Your task to perform on an android device: Show me productivity apps on the Play Store Image 0: 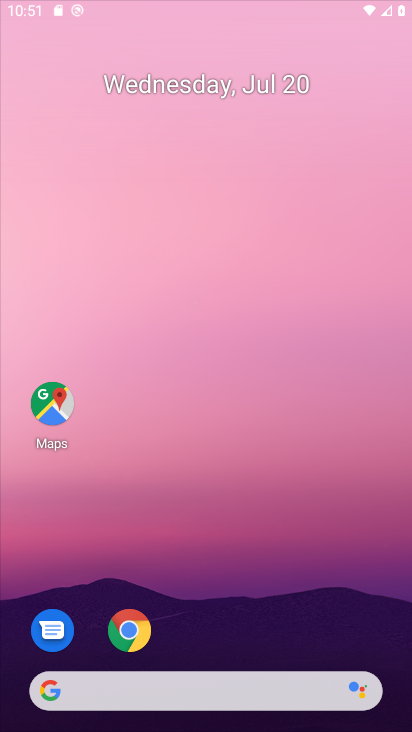
Step 0: drag from (207, 686) to (186, 144)
Your task to perform on an android device: Show me productivity apps on the Play Store Image 1: 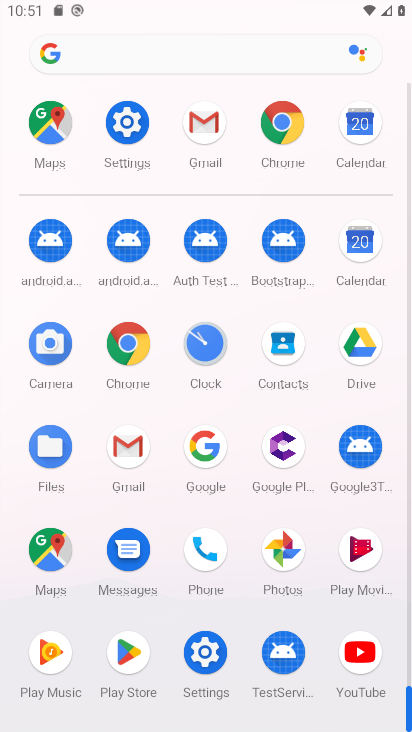
Step 1: click (124, 645)
Your task to perform on an android device: Show me productivity apps on the Play Store Image 2: 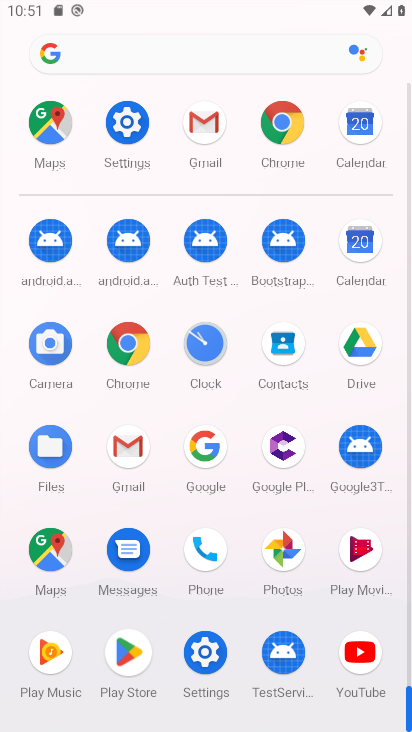
Step 2: click (124, 645)
Your task to perform on an android device: Show me productivity apps on the Play Store Image 3: 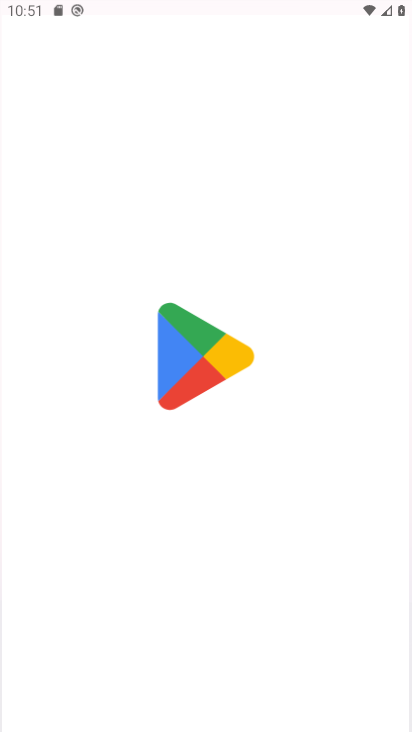
Step 3: click (124, 645)
Your task to perform on an android device: Show me productivity apps on the Play Store Image 4: 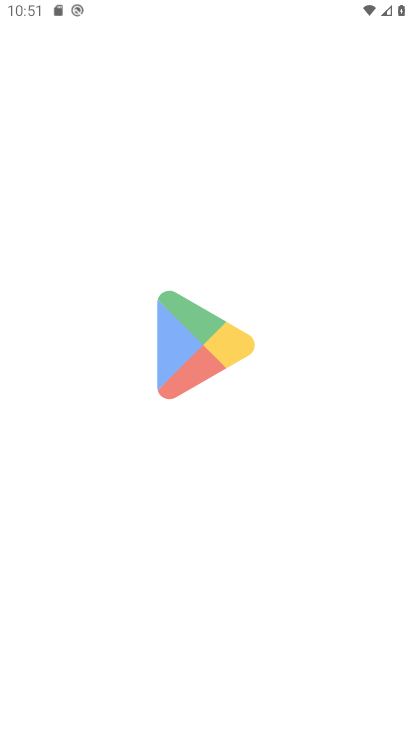
Step 4: click (124, 645)
Your task to perform on an android device: Show me productivity apps on the Play Store Image 5: 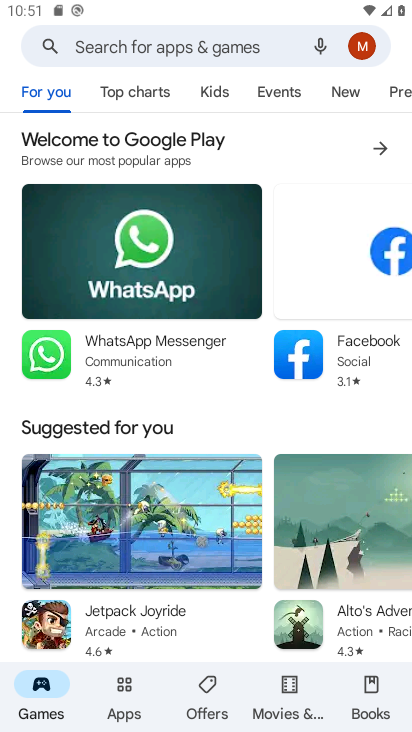
Step 5: click (85, 47)
Your task to perform on an android device: Show me productivity apps on the Play Store Image 6: 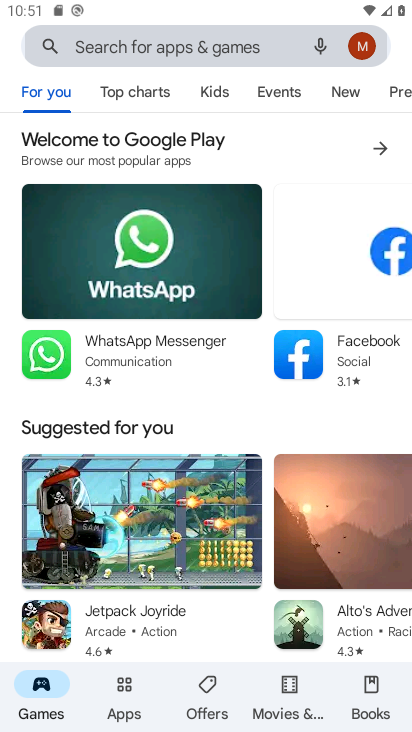
Step 6: click (91, 43)
Your task to perform on an android device: Show me productivity apps on the Play Store Image 7: 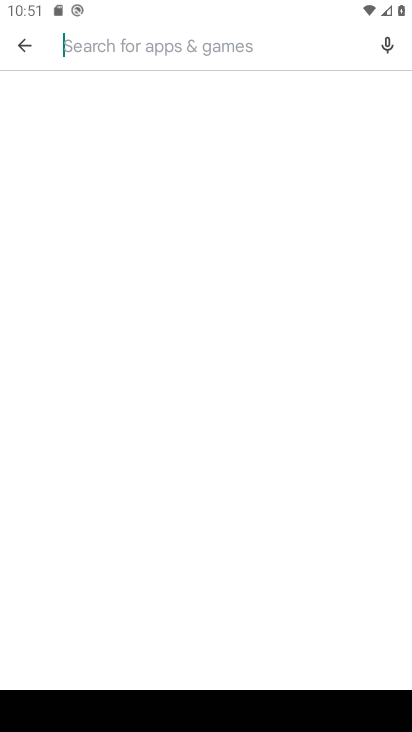
Step 7: click (96, 41)
Your task to perform on an android device: Show me productivity apps on the Play Store Image 8: 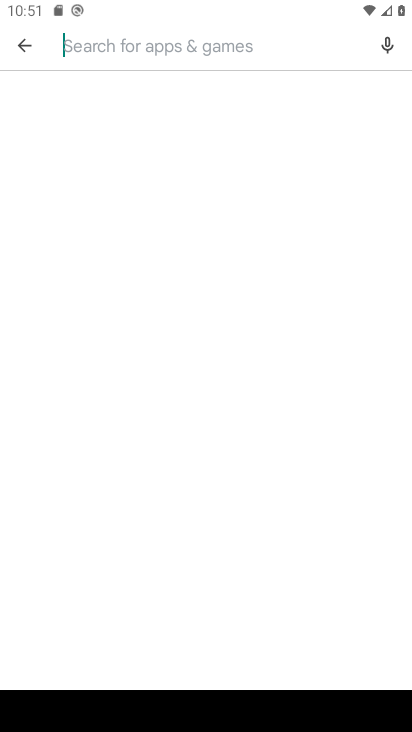
Step 8: type "productivity apps"
Your task to perform on an android device: Show me productivity apps on the Play Store Image 9: 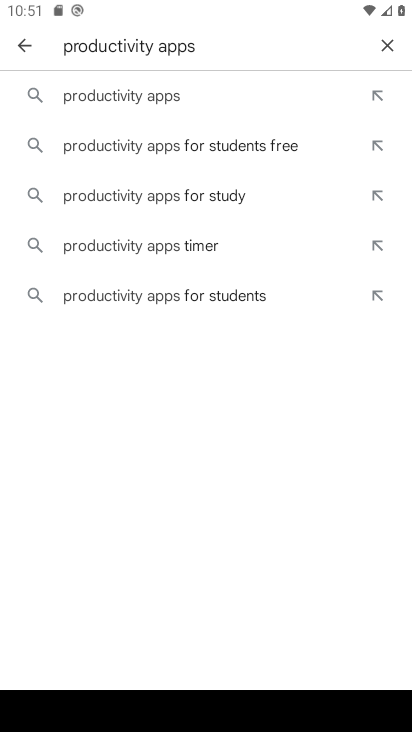
Step 9: click (129, 91)
Your task to perform on an android device: Show me productivity apps on the Play Store Image 10: 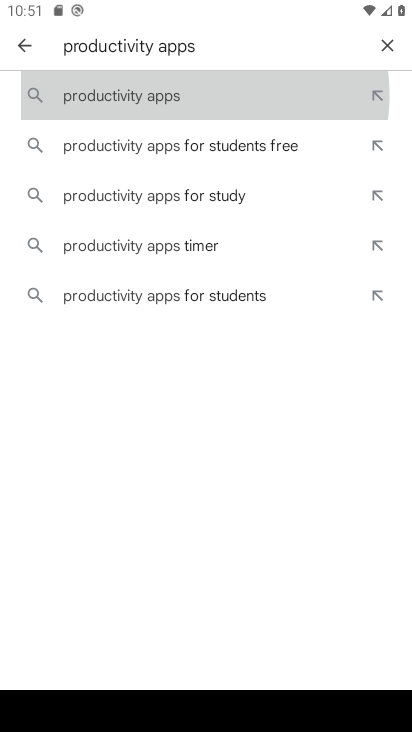
Step 10: click (126, 94)
Your task to perform on an android device: Show me productivity apps on the Play Store Image 11: 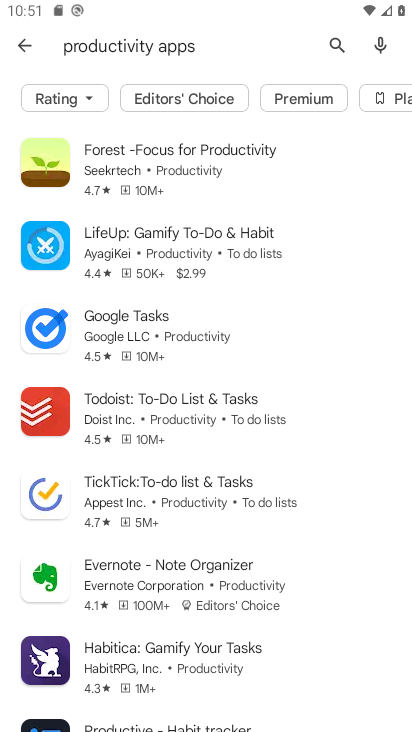
Step 11: task complete